Your task to perform on an android device: turn on airplane mode Image 0: 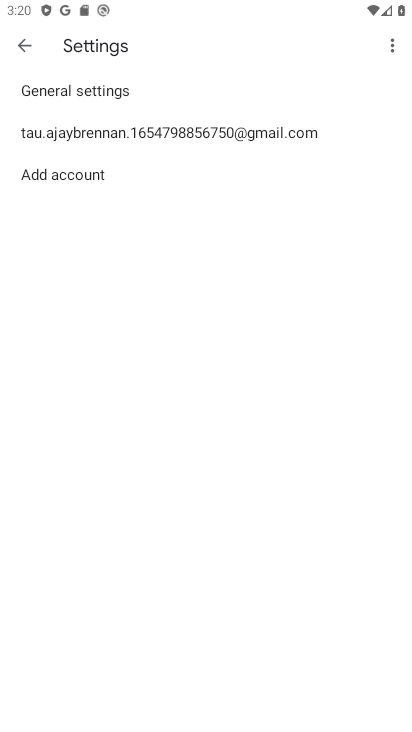
Step 0: press home button
Your task to perform on an android device: turn on airplane mode Image 1: 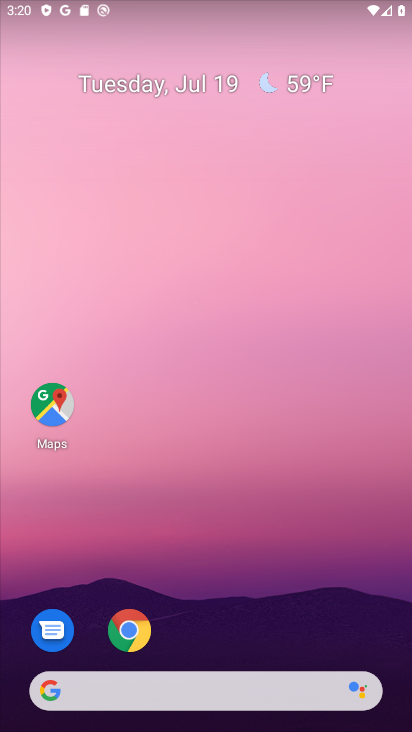
Step 1: drag from (159, 656) to (220, 166)
Your task to perform on an android device: turn on airplane mode Image 2: 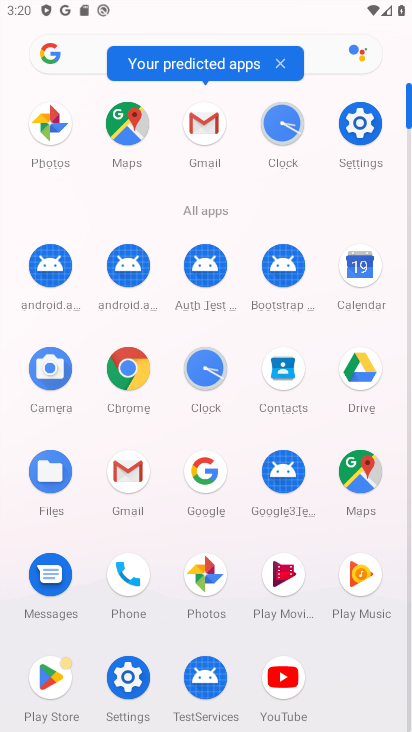
Step 2: click (95, 666)
Your task to perform on an android device: turn on airplane mode Image 3: 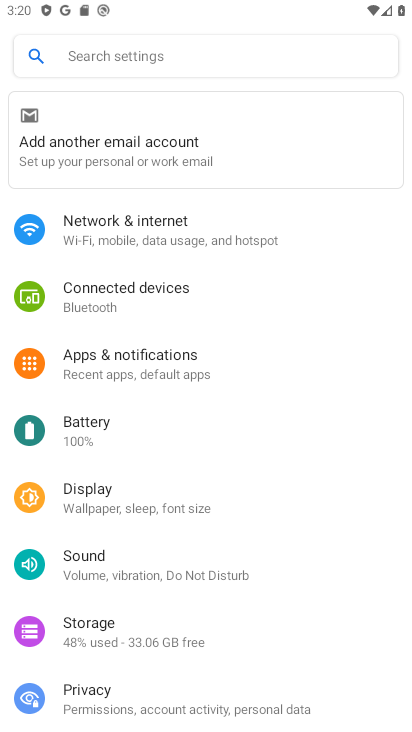
Step 3: click (241, 250)
Your task to perform on an android device: turn on airplane mode Image 4: 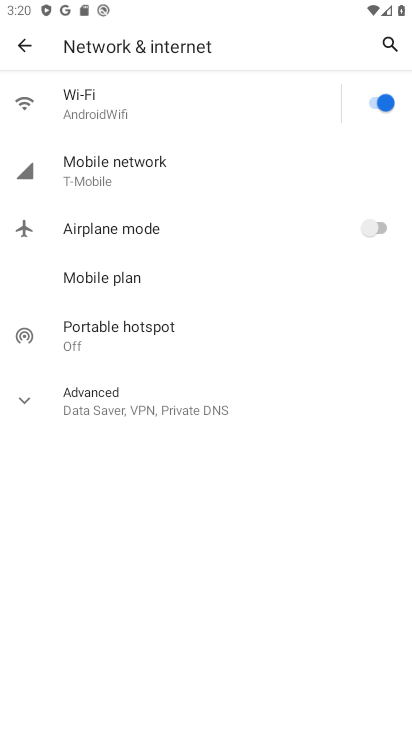
Step 4: click (389, 224)
Your task to perform on an android device: turn on airplane mode Image 5: 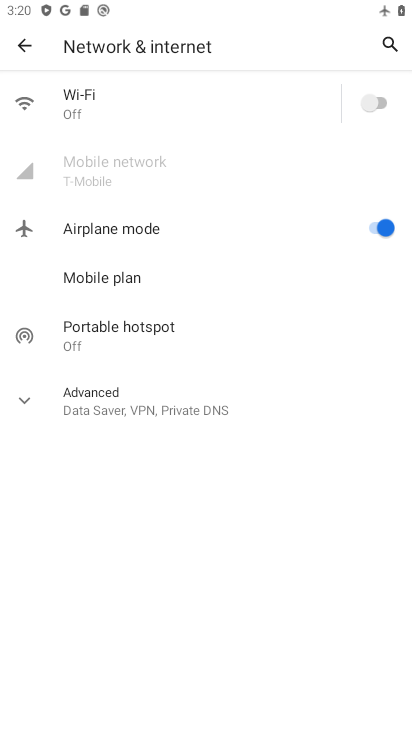
Step 5: task complete